Your task to perform on an android device: turn off data saver in the chrome app Image 0: 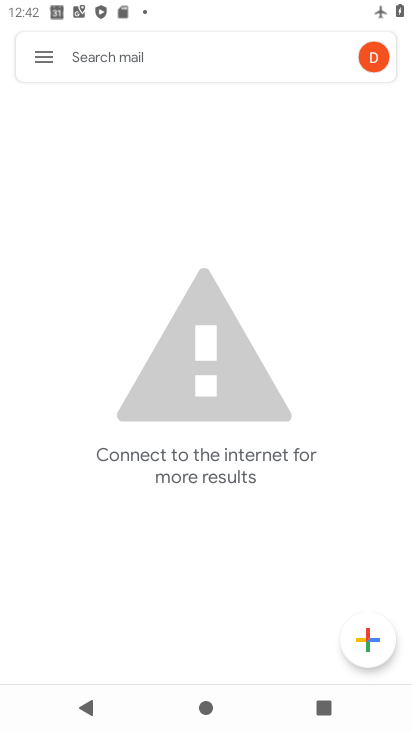
Step 0: press home button
Your task to perform on an android device: turn off data saver in the chrome app Image 1: 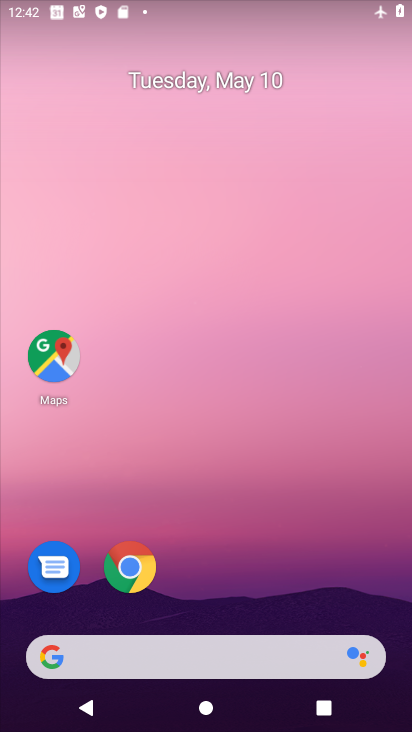
Step 1: drag from (362, 614) to (279, 39)
Your task to perform on an android device: turn off data saver in the chrome app Image 2: 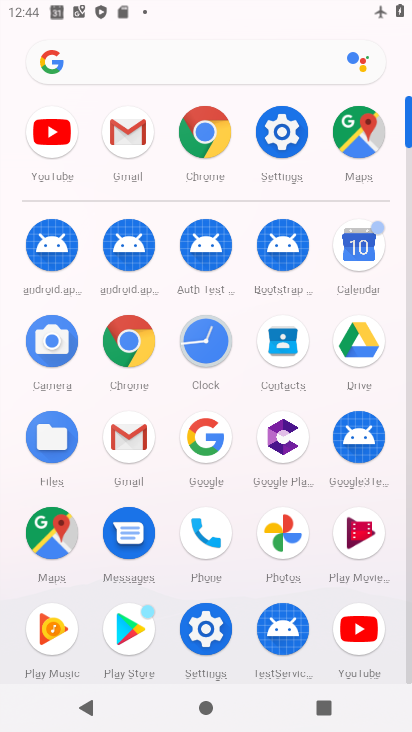
Step 2: click (122, 327)
Your task to perform on an android device: turn off data saver in the chrome app Image 3: 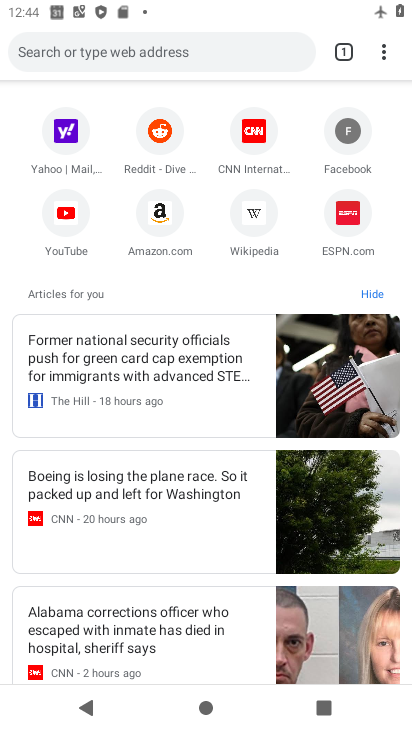
Step 3: click (383, 49)
Your task to perform on an android device: turn off data saver in the chrome app Image 4: 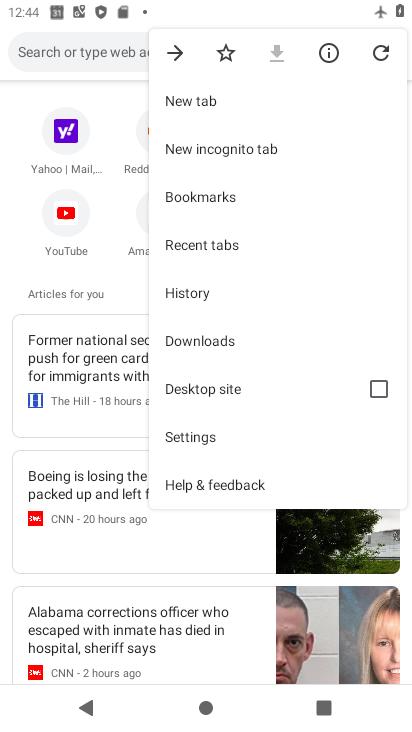
Step 4: click (229, 432)
Your task to perform on an android device: turn off data saver in the chrome app Image 5: 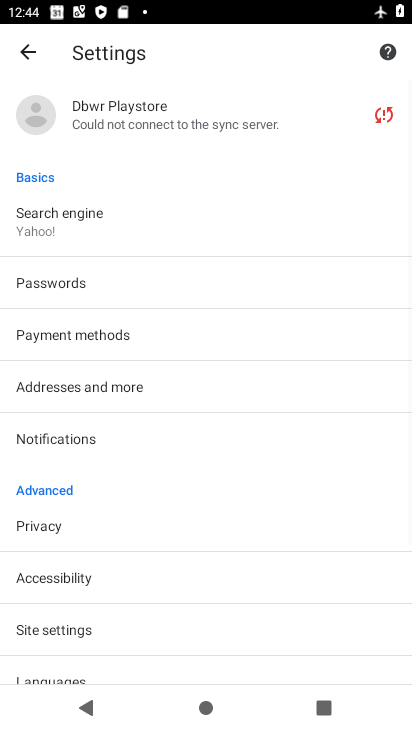
Step 5: drag from (232, 571) to (237, 182)
Your task to perform on an android device: turn off data saver in the chrome app Image 6: 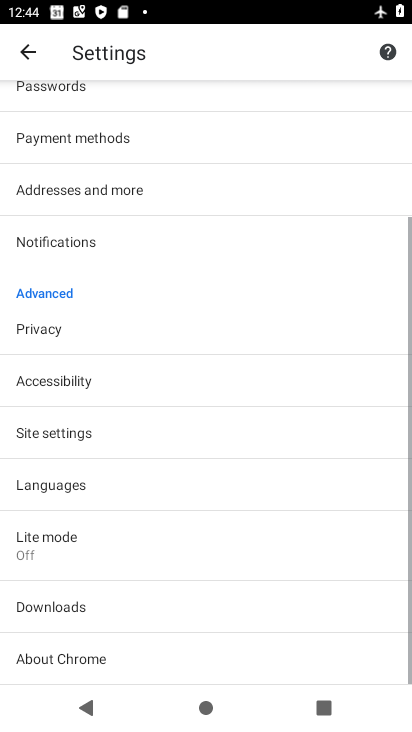
Step 6: click (161, 527)
Your task to perform on an android device: turn off data saver in the chrome app Image 7: 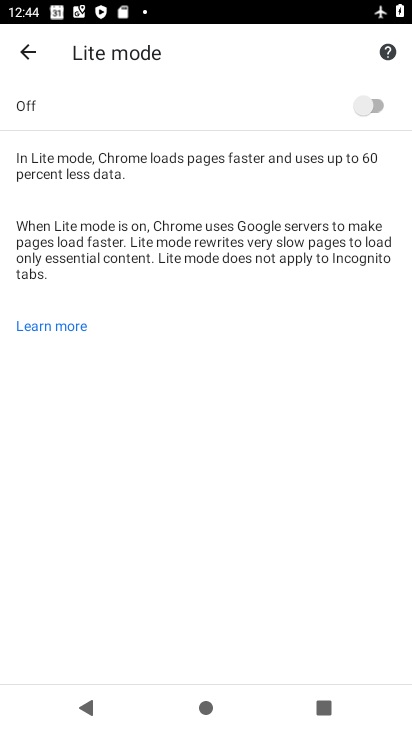
Step 7: task complete